Your task to perform on an android device: What's on my calendar today? Image 0: 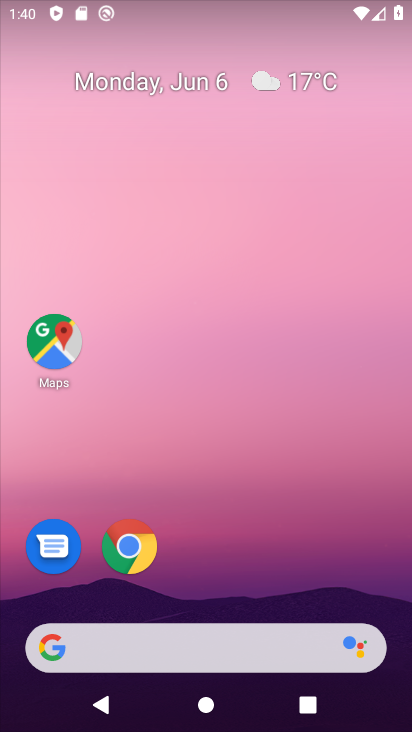
Step 0: drag from (270, 589) to (328, 36)
Your task to perform on an android device: What's on my calendar today? Image 1: 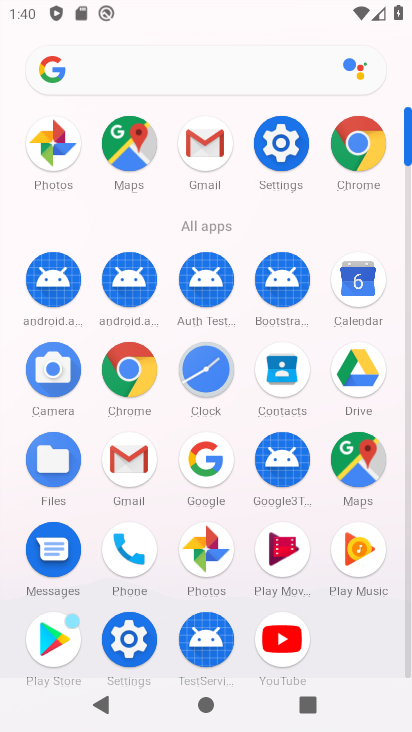
Step 1: click (362, 283)
Your task to perform on an android device: What's on my calendar today? Image 2: 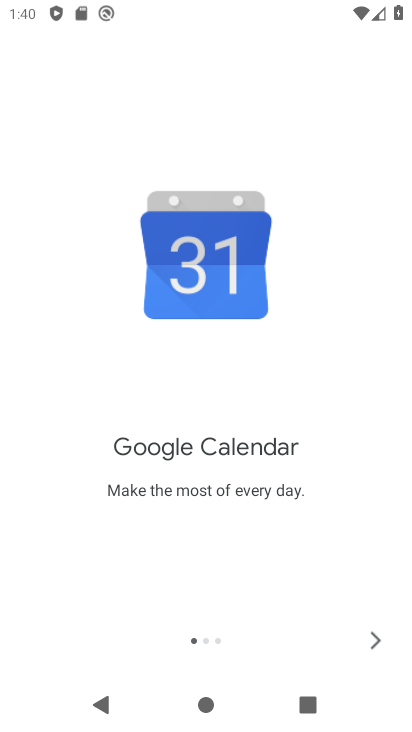
Step 2: click (366, 636)
Your task to perform on an android device: What's on my calendar today? Image 3: 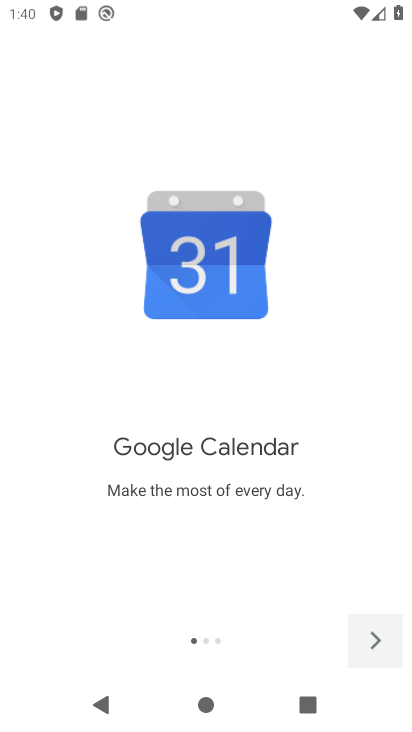
Step 3: click (366, 636)
Your task to perform on an android device: What's on my calendar today? Image 4: 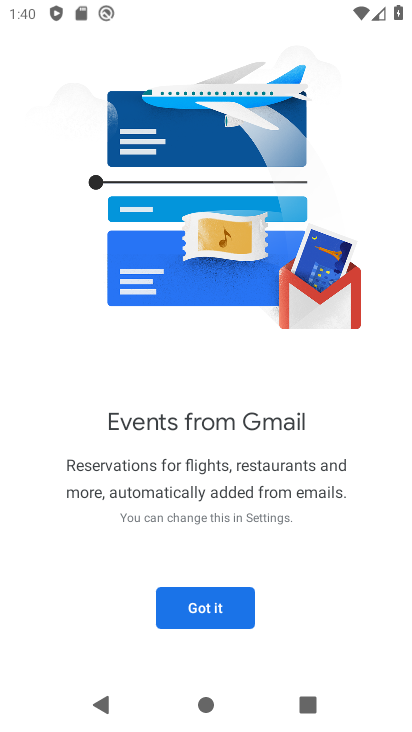
Step 4: click (214, 605)
Your task to perform on an android device: What's on my calendar today? Image 5: 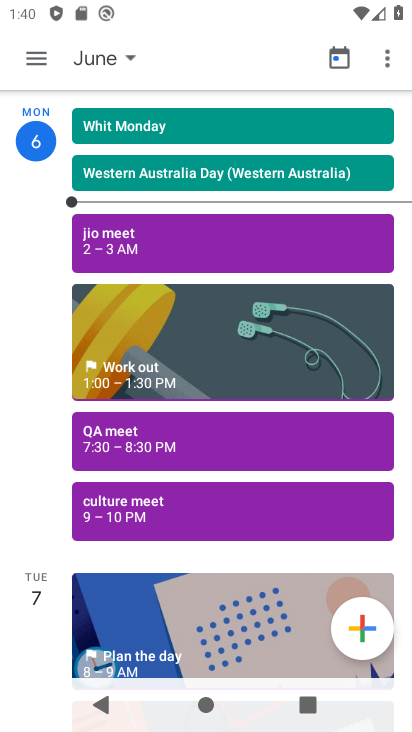
Step 5: task complete